Your task to perform on an android device: What's the weather going to be tomorrow? Image 0: 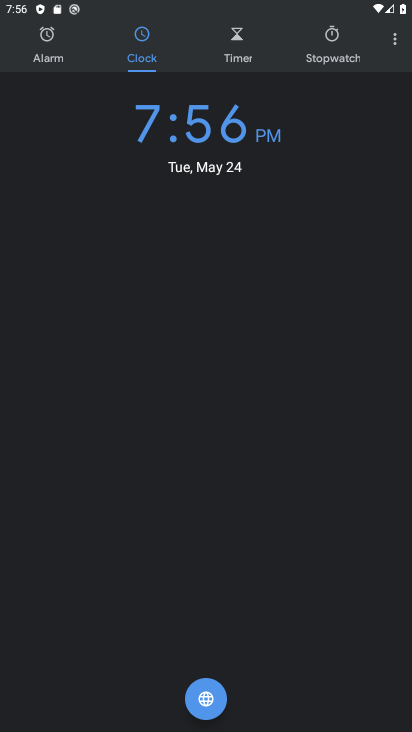
Step 0: press back button
Your task to perform on an android device: What's the weather going to be tomorrow? Image 1: 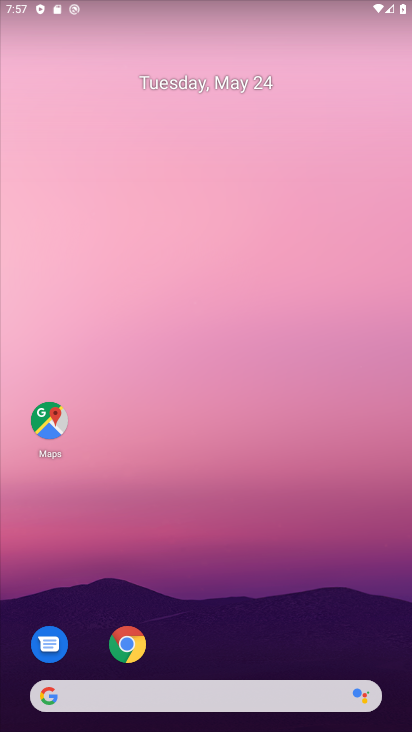
Step 1: drag from (248, 647) to (132, 243)
Your task to perform on an android device: What's the weather going to be tomorrow? Image 2: 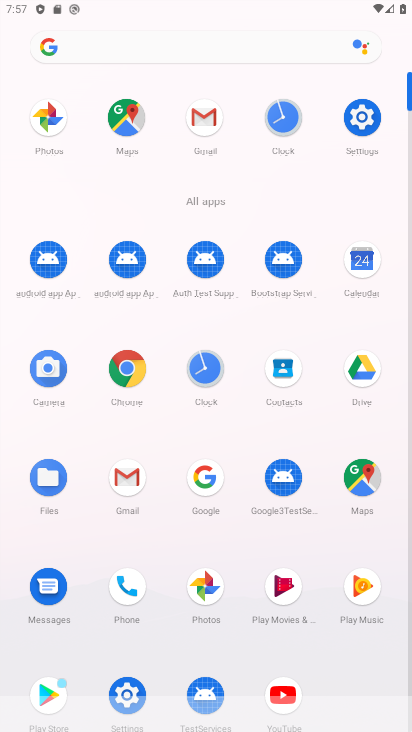
Step 2: press back button
Your task to perform on an android device: What's the weather going to be tomorrow? Image 3: 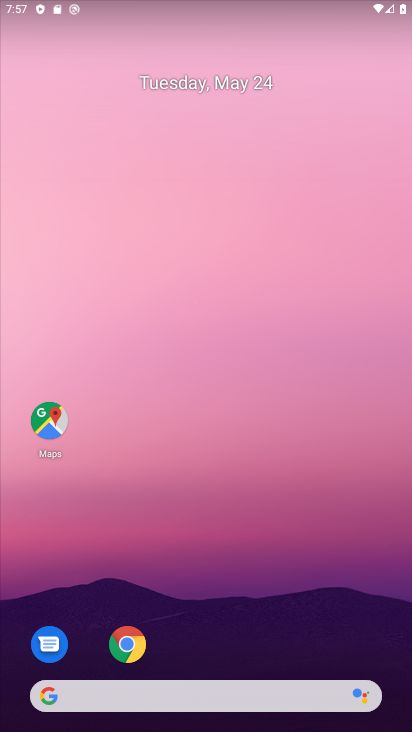
Step 3: press home button
Your task to perform on an android device: What's the weather going to be tomorrow? Image 4: 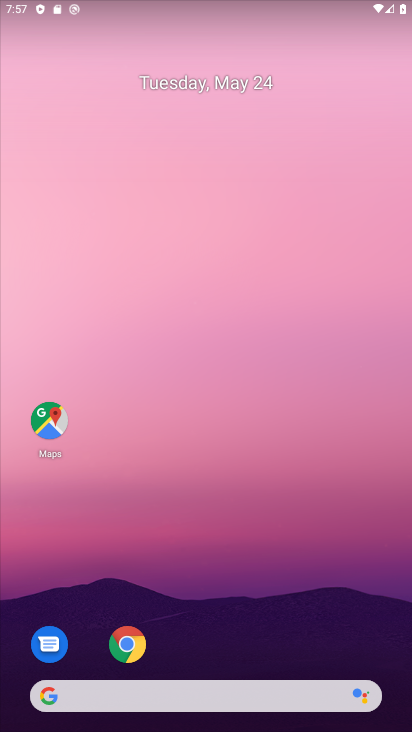
Step 4: drag from (28, 256) to (280, 444)
Your task to perform on an android device: What's the weather going to be tomorrow? Image 5: 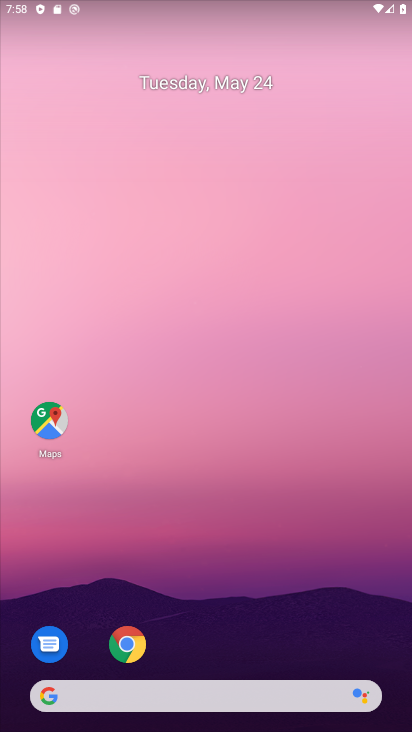
Step 5: drag from (232, 497) to (332, 67)
Your task to perform on an android device: What's the weather going to be tomorrow? Image 6: 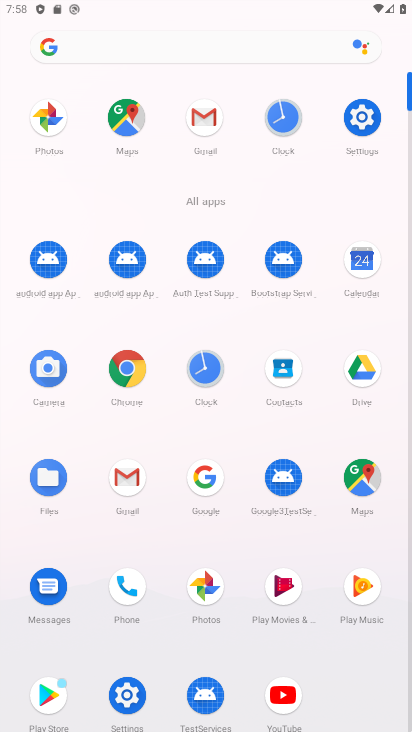
Step 6: press back button
Your task to perform on an android device: What's the weather going to be tomorrow? Image 7: 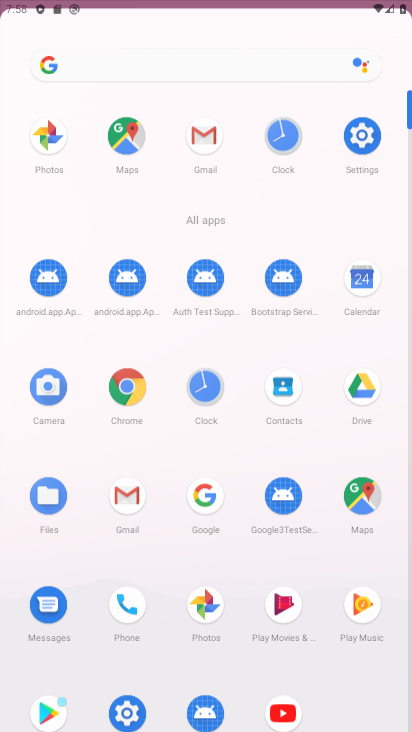
Step 7: press back button
Your task to perform on an android device: What's the weather going to be tomorrow? Image 8: 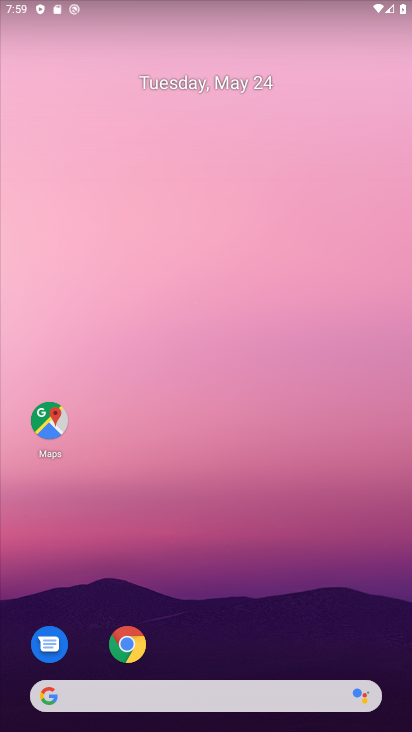
Step 8: drag from (5, 205) to (391, 406)
Your task to perform on an android device: What's the weather going to be tomorrow? Image 9: 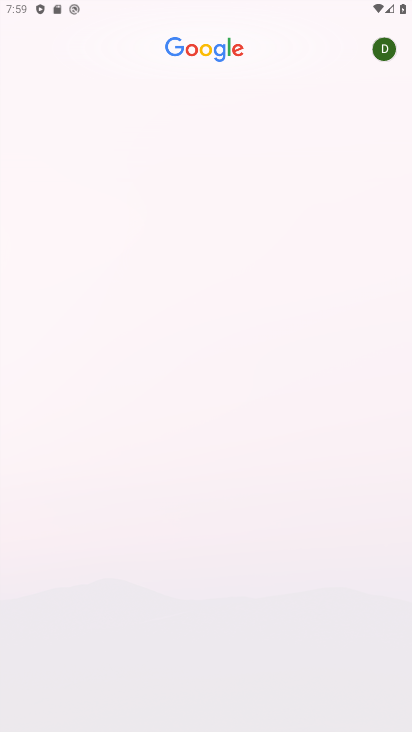
Step 9: drag from (247, 366) to (410, 470)
Your task to perform on an android device: What's the weather going to be tomorrow? Image 10: 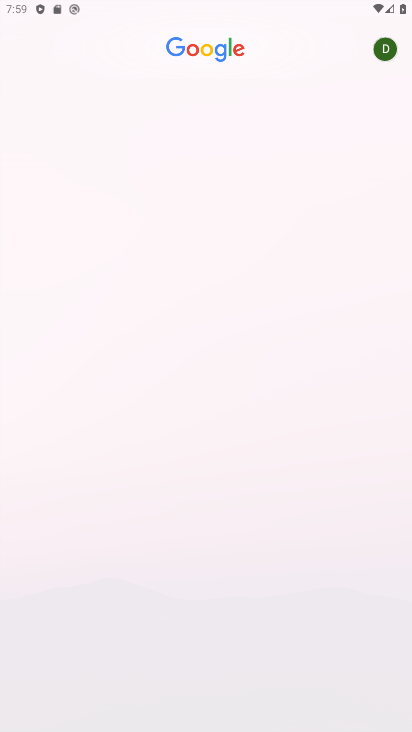
Step 10: click (377, 351)
Your task to perform on an android device: What's the weather going to be tomorrow? Image 11: 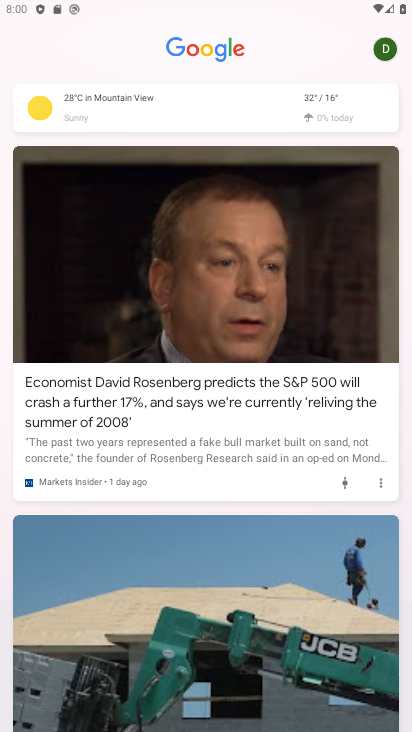
Step 11: press back button
Your task to perform on an android device: What's the weather going to be tomorrow? Image 12: 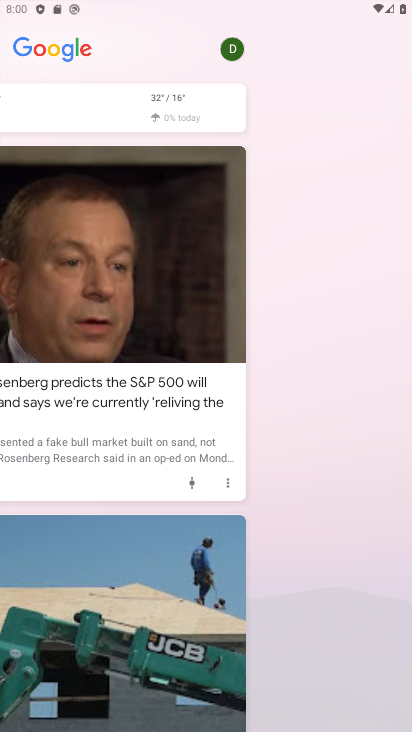
Step 12: press back button
Your task to perform on an android device: What's the weather going to be tomorrow? Image 13: 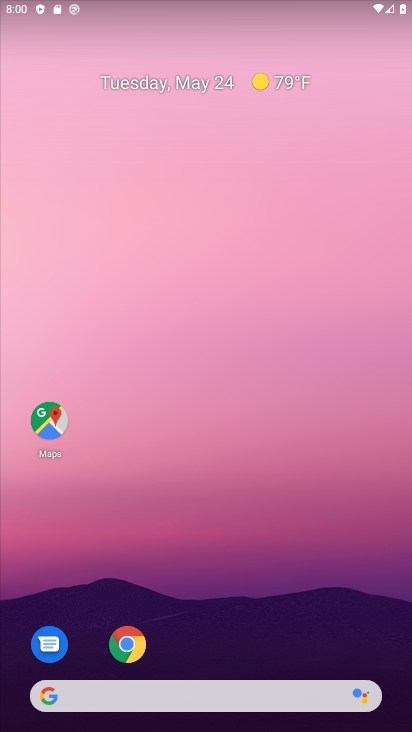
Step 13: press back button
Your task to perform on an android device: What's the weather going to be tomorrow? Image 14: 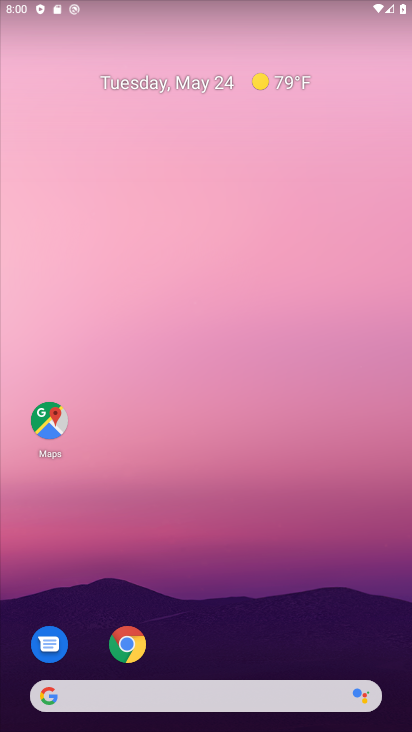
Step 14: press back button
Your task to perform on an android device: What's the weather going to be tomorrow? Image 15: 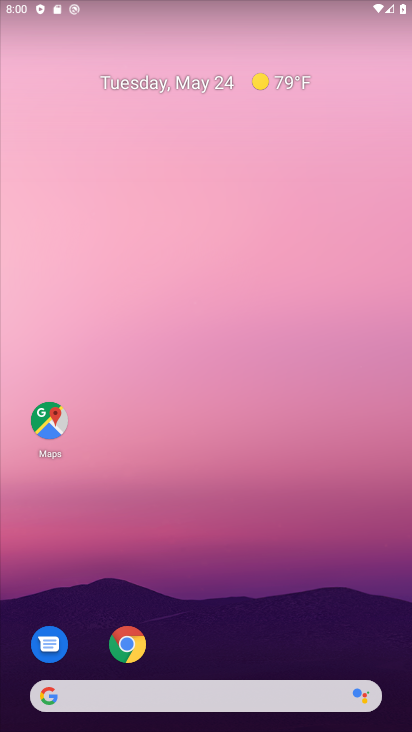
Step 15: drag from (10, 186) to (331, 374)
Your task to perform on an android device: What's the weather going to be tomorrow? Image 16: 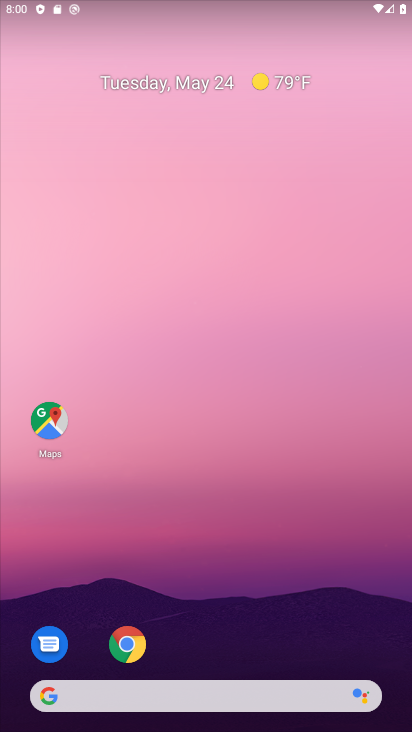
Step 16: drag from (22, 208) to (384, 296)
Your task to perform on an android device: What's the weather going to be tomorrow? Image 17: 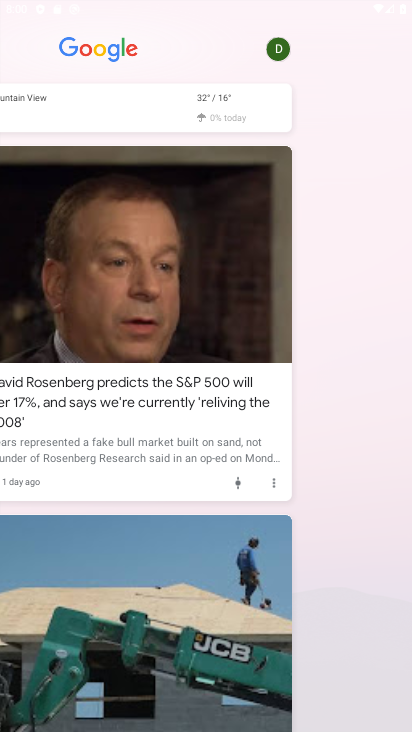
Step 17: drag from (51, 223) to (333, 155)
Your task to perform on an android device: What's the weather going to be tomorrow? Image 18: 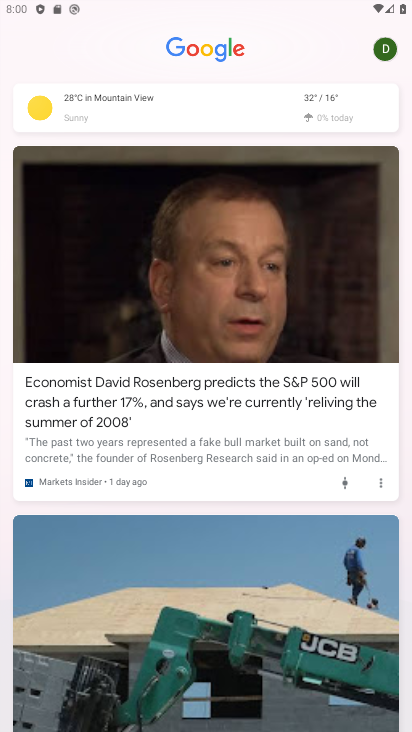
Step 18: click (161, 112)
Your task to perform on an android device: What's the weather going to be tomorrow? Image 19: 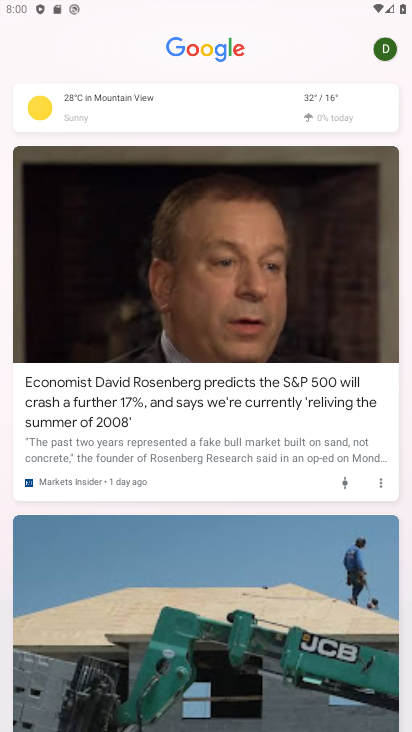
Step 19: click (169, 106)
Your task to perform on an android device: What's the weather going to be tomorrow? Image 20: 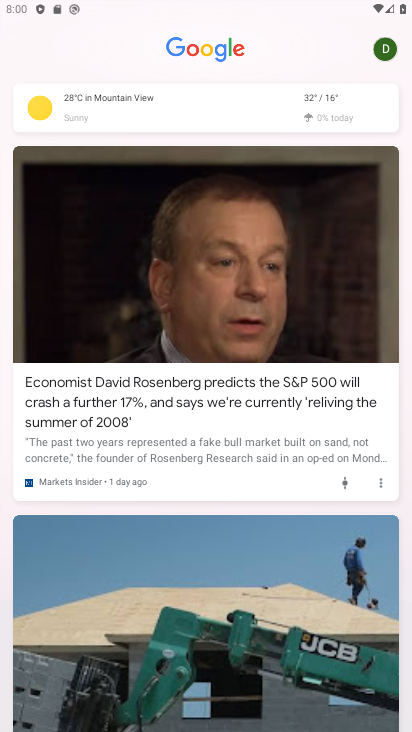
Step 20: click (171, 104)
Your task to perform on an android device: What's the weather going to be tomorrow? Image 21: 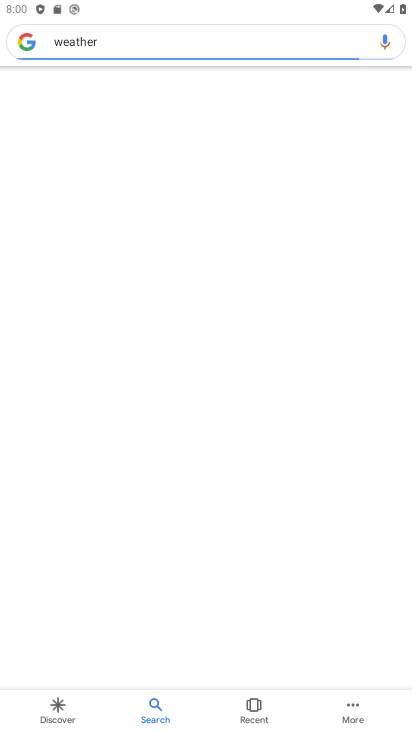
Step 21: drag from (173, 102) to (251, 66)
Your task to perform on an android device: What's the weather going to be tomorrow? Image 22: 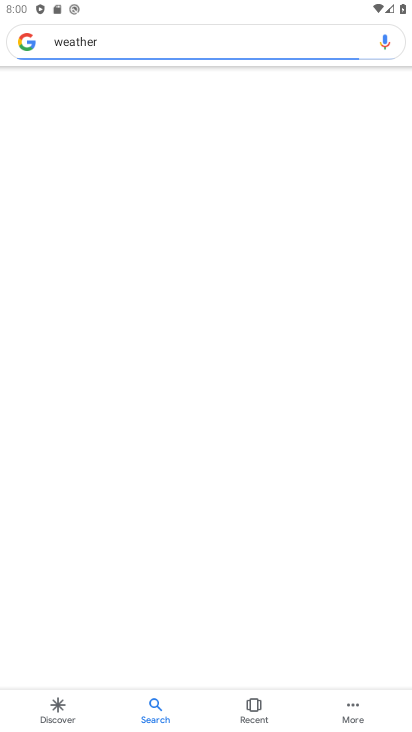
Step 22: drag from (292, 434) to (264, 72)
Your task to perform on an android device: What's the weather going to be tomorrow? Image 23: 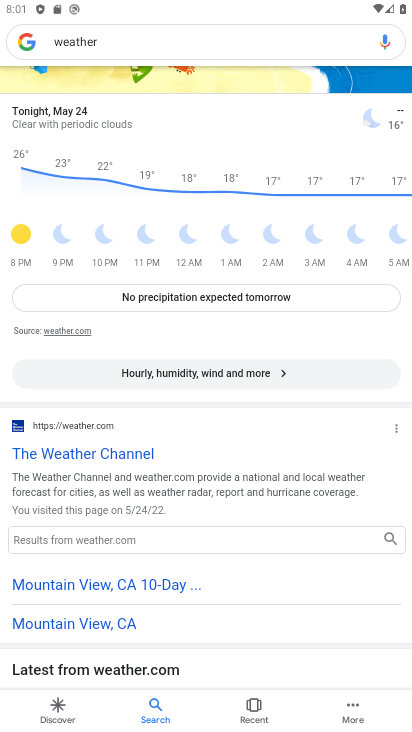
Step 23: press back button
Your task to perform on an android device: What's the weather going to be tomorrow? Image 24: 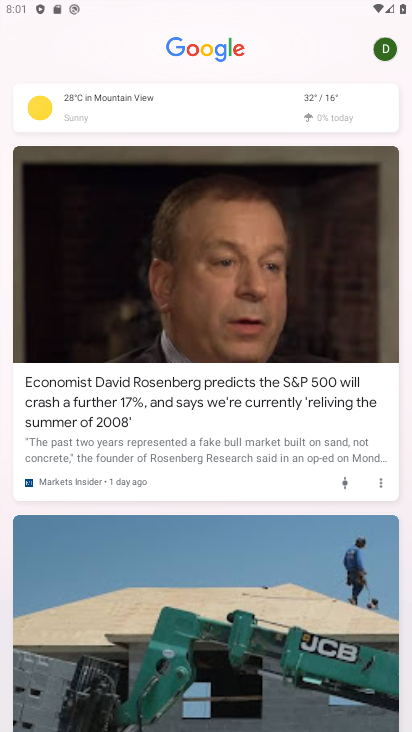
Step 24: press home button
Your task to perform on an android device: What's the weather going to be tomorrow? Image 25: 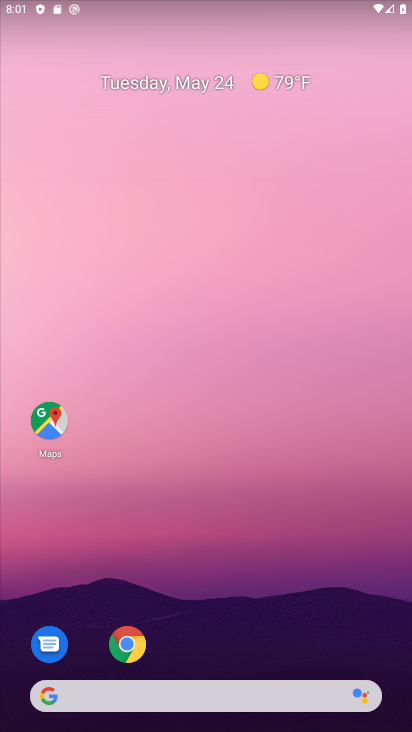
Step 25: drag from (284, 639) to (221, 143)
Your task to perform on an android device: What's the weather going to be tomorrow? Image 26: 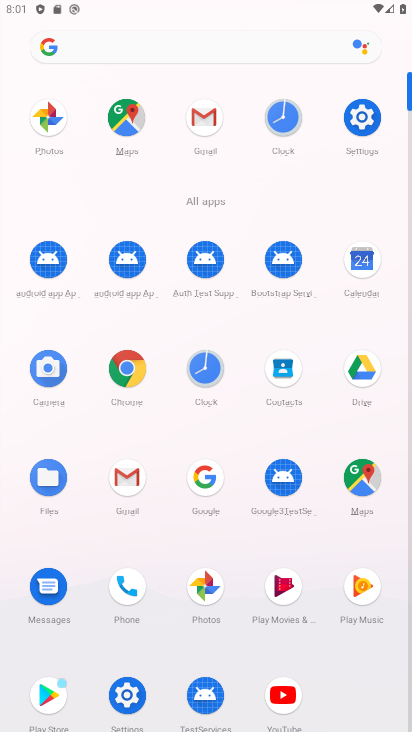
Step 26: press back button
Your task to perform on an android device: What's the weather going to be tomorrow? Image 27: 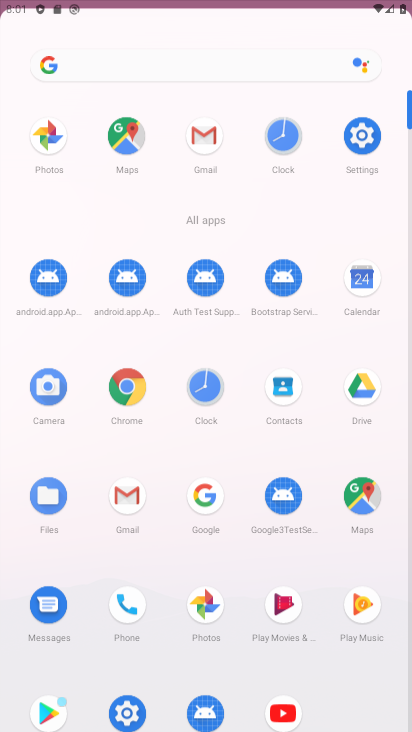
Step 27: press back button
Your task to perform on an android device: What's the weather going to be tomorrow? Image 28: 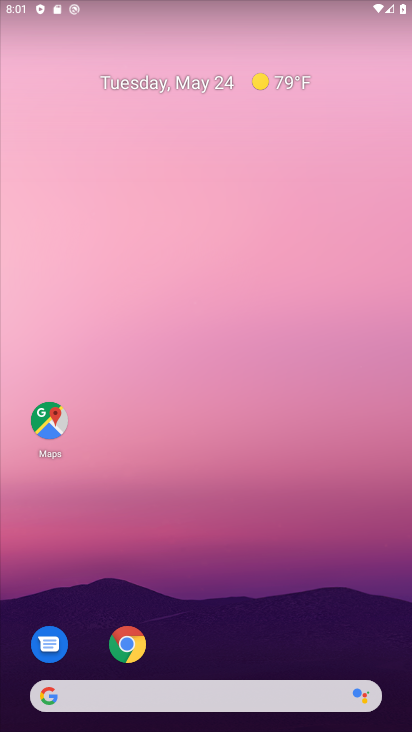
Step 28: press back button
Your task to perform on an android device: What's the weather going to be tomorrow? Image 29: 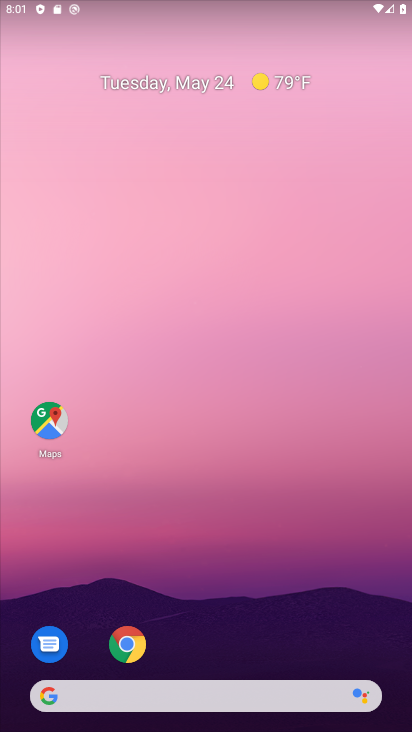
Step 29: press back button
Your task to perform on an android device: What's the weather going to be tomorrow? Image 30: 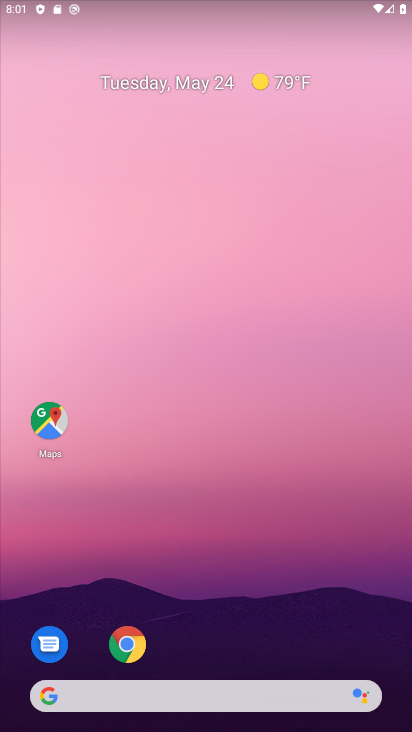
Step 30: press back button
Your task to perform on an android device: What's the weather going to be tomorrow? Image 31: 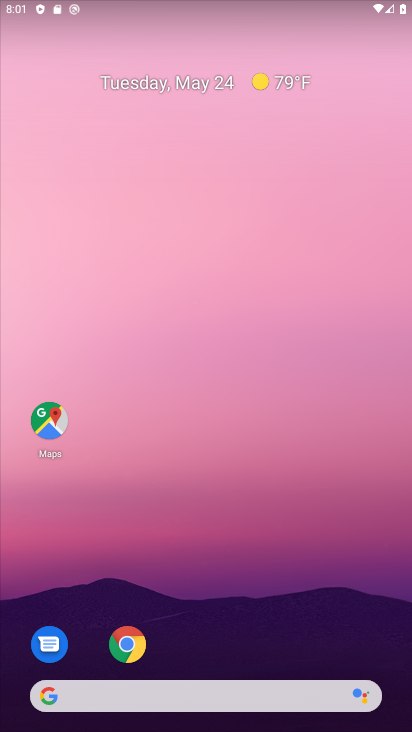
Step 31: drag from (15, 156) to (289, 349)
Your task to perform on an android device: What's the weather going to be tomorrow? Image 32: 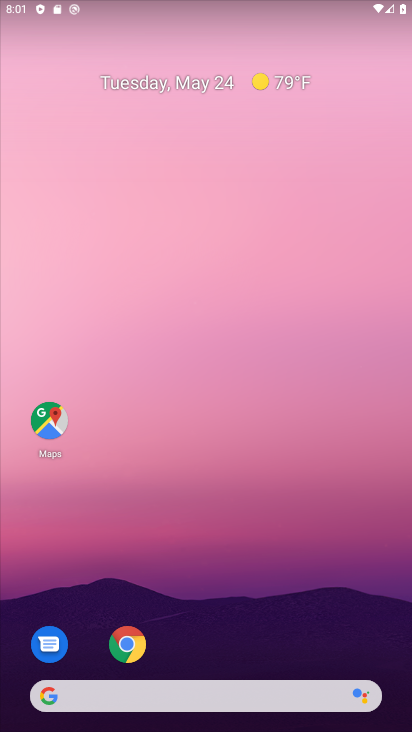
Step 32: drag from (110, 170) to (378, 436)
Your task to perform on an android device: What's the weather going to be tomorrow? Image 33: 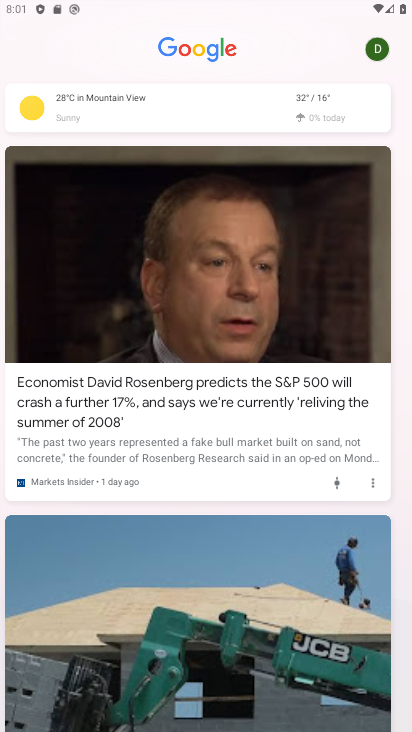
Step 33: drag from (153, 267) to (375, 388)
Your task to perform on an android device: What's the weather going to be tomorrow? Image 34: 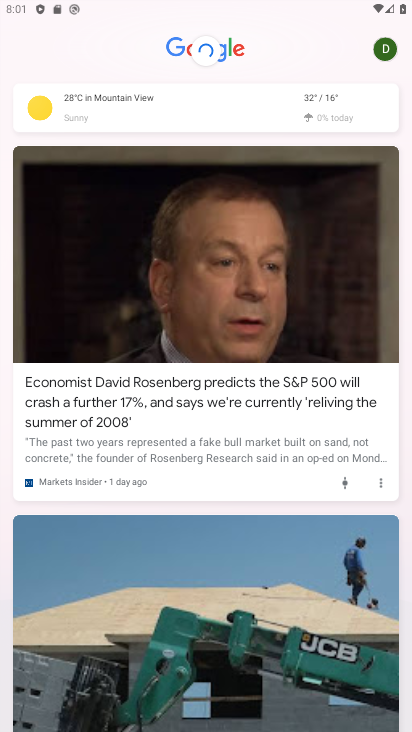
Step 34: click (146, 106)
Your task to perform on an android device: What's the weather going to be tomorrow? Image 35: 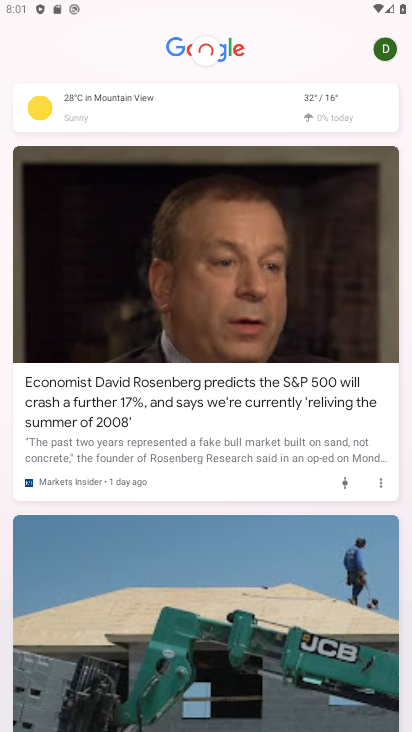
Step 35: click (168, 99)
Your task to perform on an android device: What's the weather going to be tomorrow? Image 36: 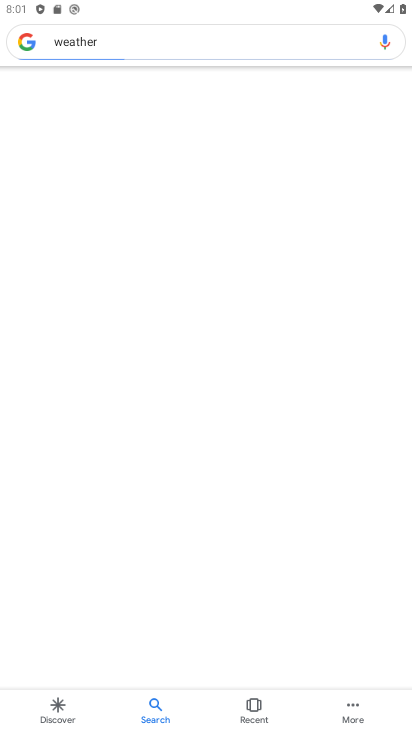
Step 36: click (168, 100)
Your task to perform on an android device: What's the weather going to be tomorrow? Image 37: 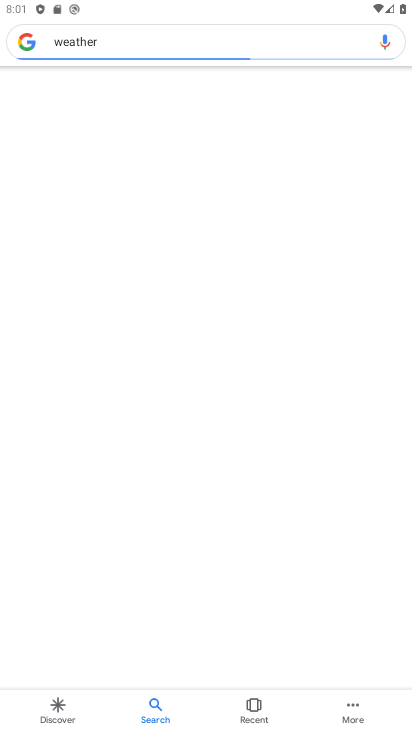
Step 37: click (168, 101)
Your task to perform on an android device: What's the weather going to be tomorrow? Image 38: 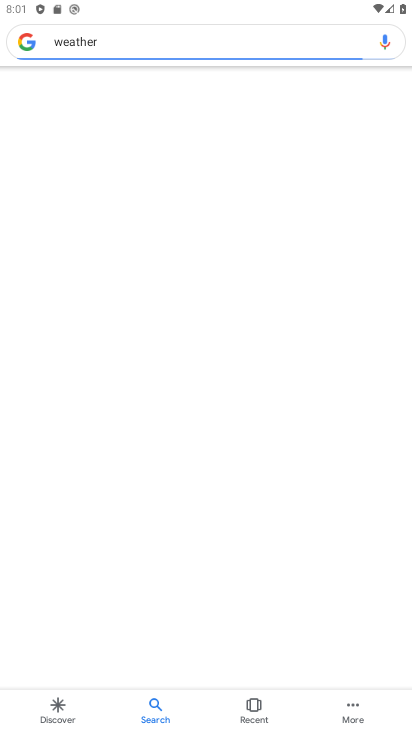
Step 38: click (170, 102)
Your task to perform on an android device: What's the weather going to be tomorrow? Image 39: 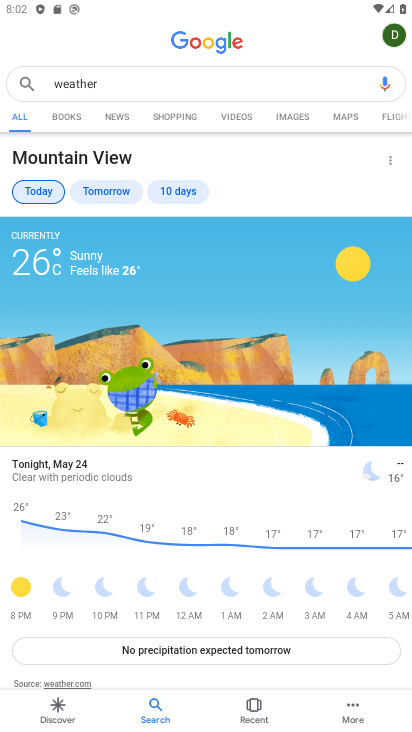
Step 39: task complete